Your task to perform on an android device: Open Google Maps Image 0: 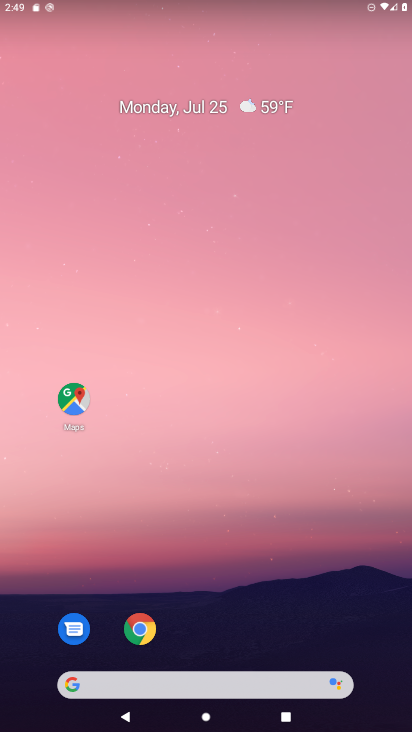
Step 0: click (70, 398)
Your task to perform on an android device: Open Google Maps Image 1: 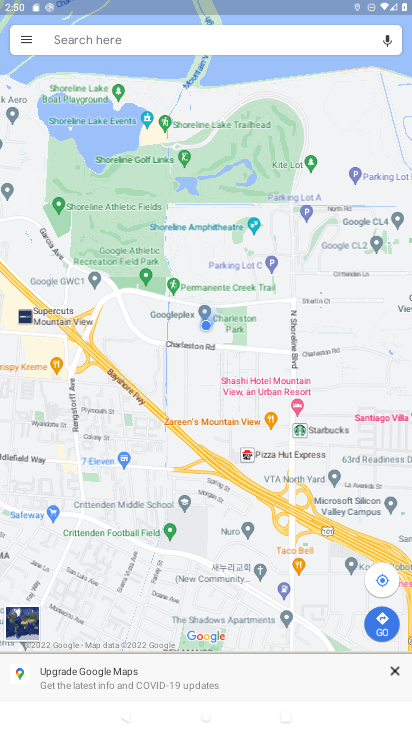
Step 1: task complete